Your task to perform on an android device: Go to Wikipedia Image 0: 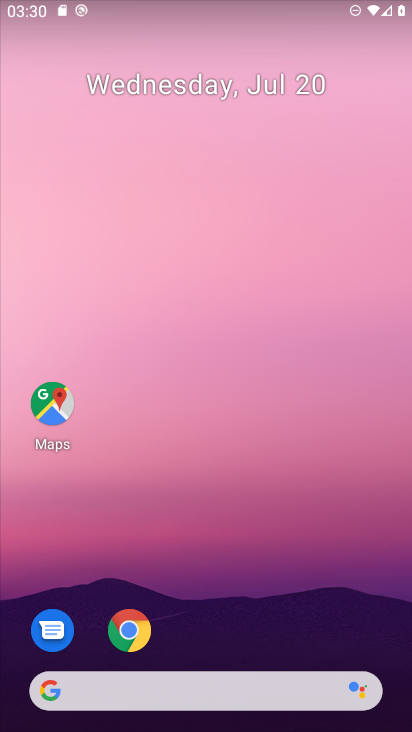
Step 0: drag from (348, 609) to (363, 156)
Your task to perform on an android device: Go to Wikipedia Image 1: 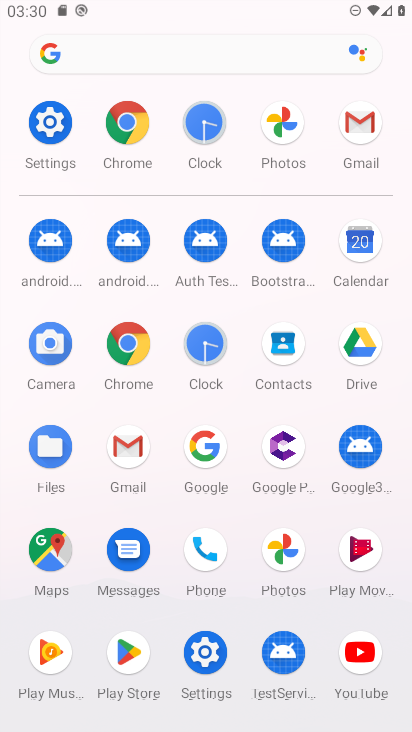
Step 1: click (138, 350)
Your task to perform on an android device: Go to Wikipedia Image 2: 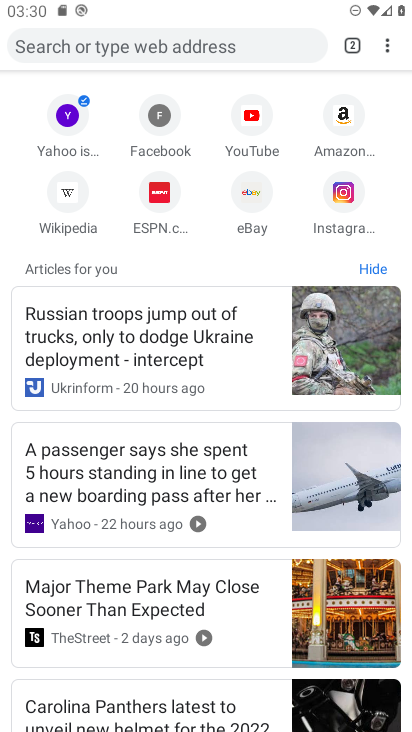
Step 2: click (202, 40)
Your task to perform on an android device: Go to Wikipedia Image 3: 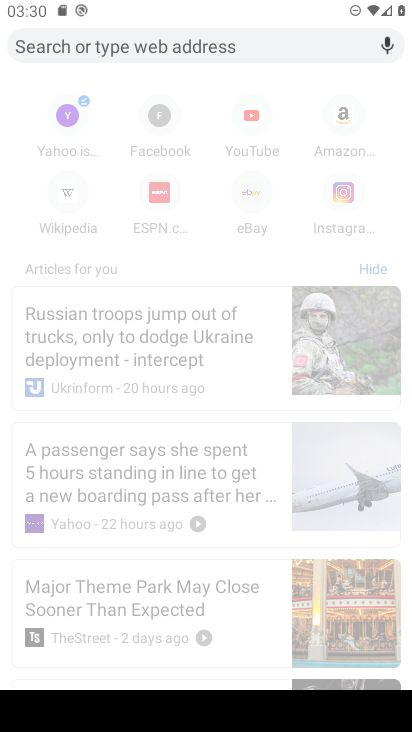
Step 3: type "wikipedia"
Your task to perform on an android device: Go to Wikipedia Image 4: 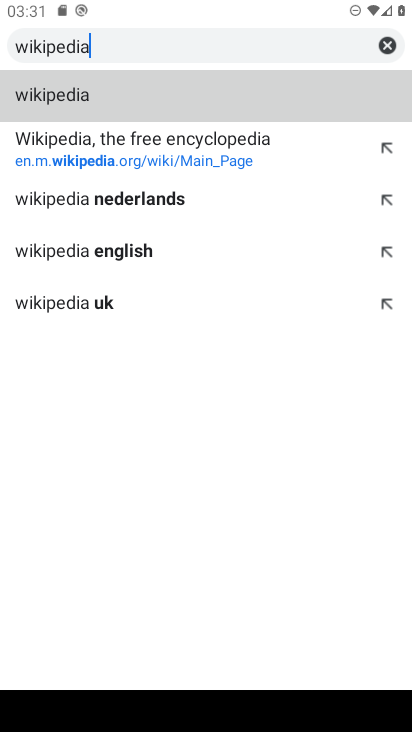
Step 4: click (363, 105)
Your task to perform on an android device: Go to Wikipedia Image 5: 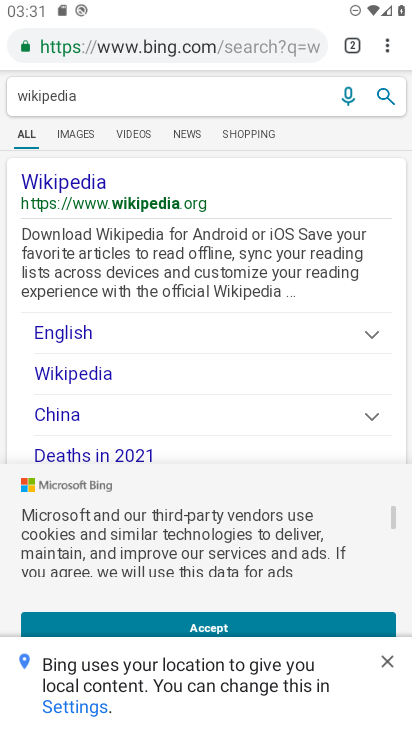
Step 5: task complete